Your task to perform on an android device: open device folders in google photos Image 0: 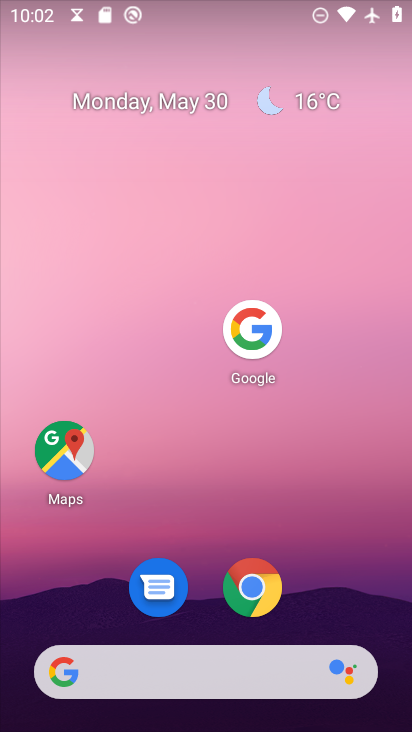
Step 0: drag from (195, 662) to (273, 123)
Your task to perform on an android device: open device folders in google photos Image 1: 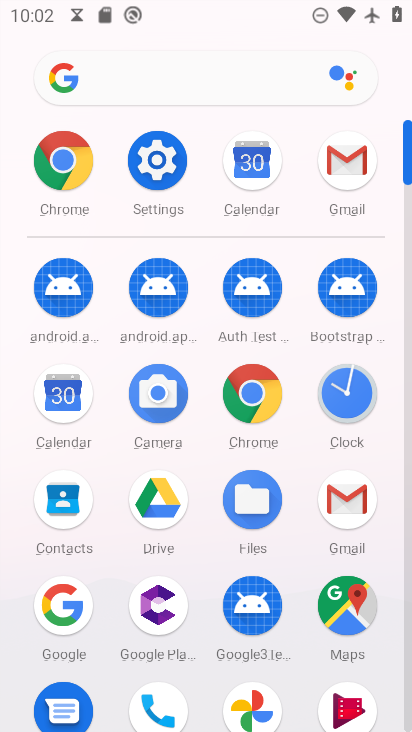
Step 1: click (253, 700)
Your task to perform on an android device: open device folders in google photos Image 2: 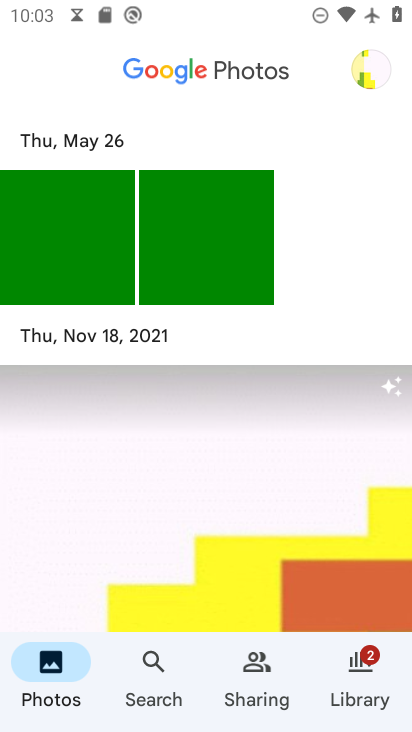
Step 2: click (354, 692)
Your task to perform on an android device: open device folders in google photos Image 3: 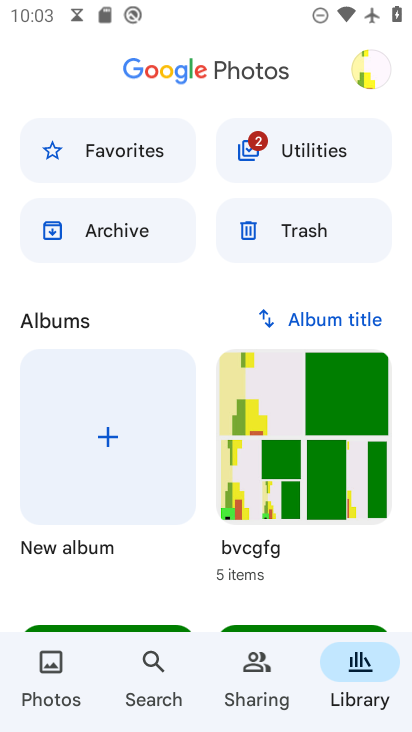
Step 3: click (169, 703)
Your task to perform on an android device: open device folders in google photos Image 4: 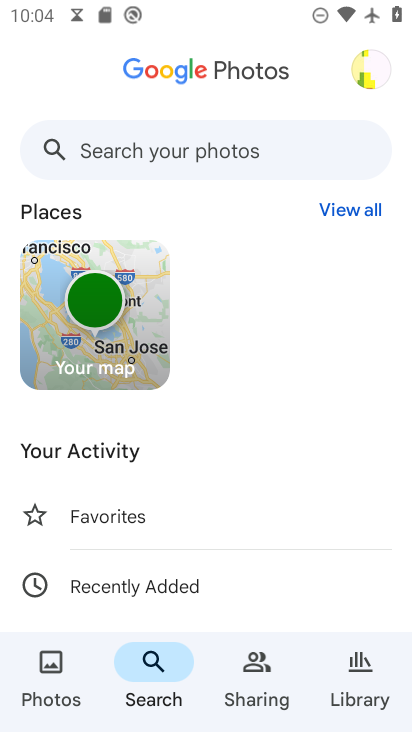
Step 4: task complete